Your task to perform on an android device: Open Yahoo.com Image 0: 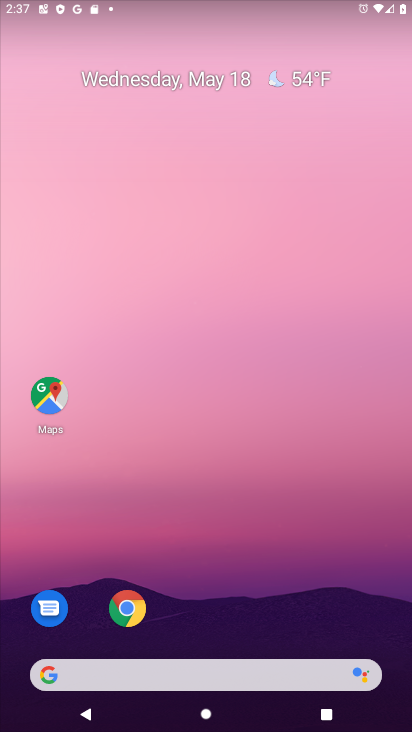
Step 0: click (137, 625)
Your task to perform on an android device: Open Yahoo.com Image 1: 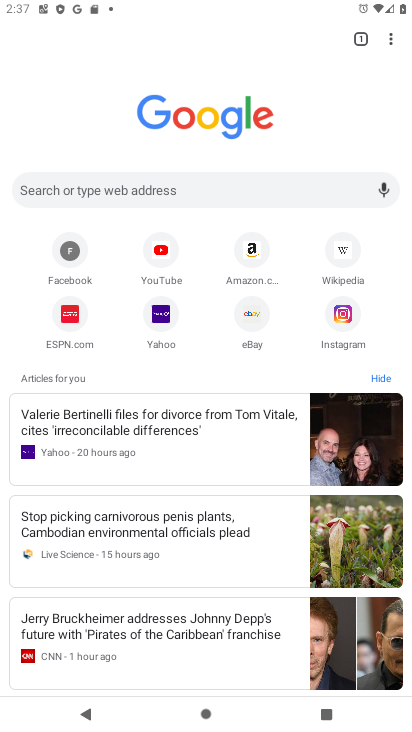
Step 1: click (160, 313)
Your task to perform on an android device: Open Yahoo.com Image 2: 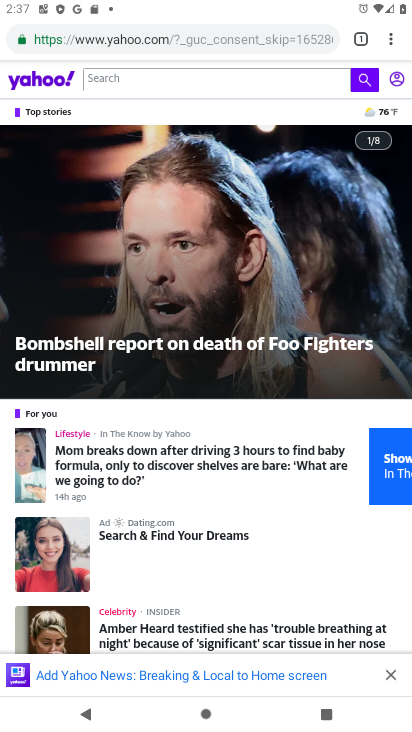
Step 2: task complete